Your task to perform on an android device: turn off sleep mode Image 0: 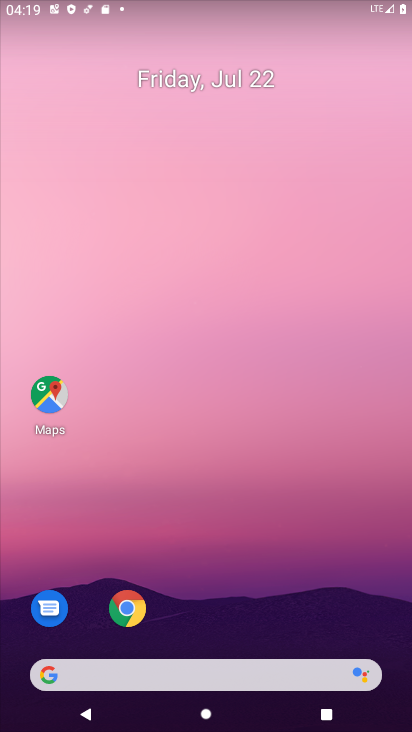
Step 0: click (129, 599)
Your task to perform on an android device: turn off sleep mode Image 1: 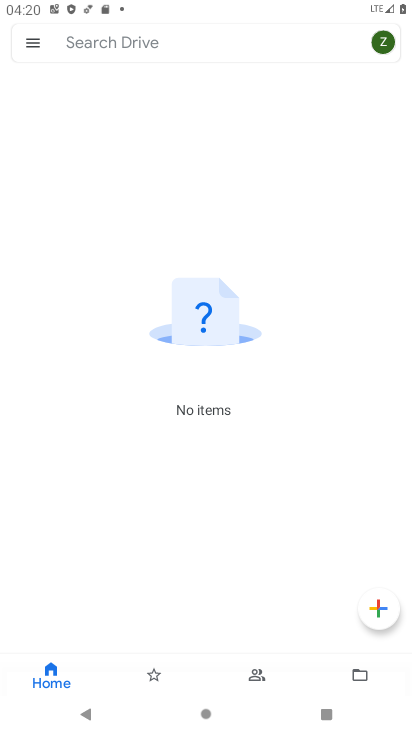
Step 1: press home button
Your task to perform on an android device: turn off sleep mode Image 2: 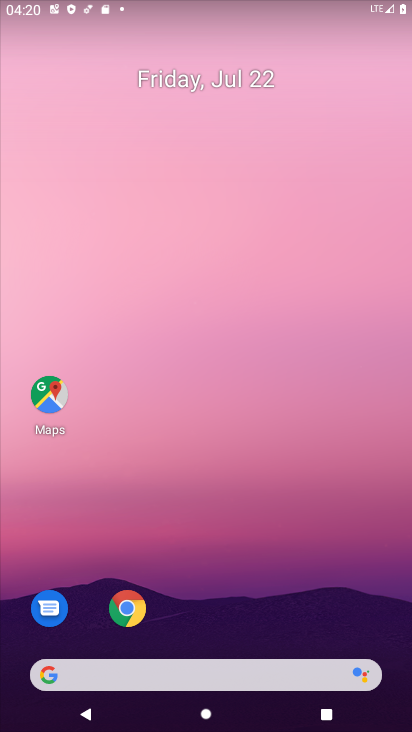
Step 2: drag from (239, 726) to (243, 222)
Your task to perform on an android device: turn off sleep mode Image 3: 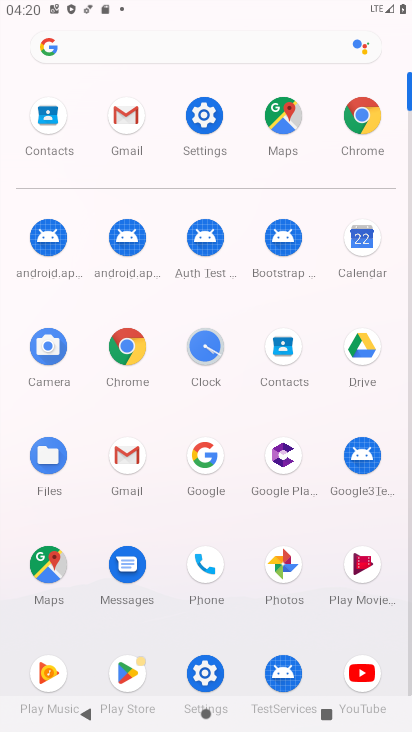
Step 3: click (209, 123)
Your task to perform on an android device: turn off sleep mode Image 4: 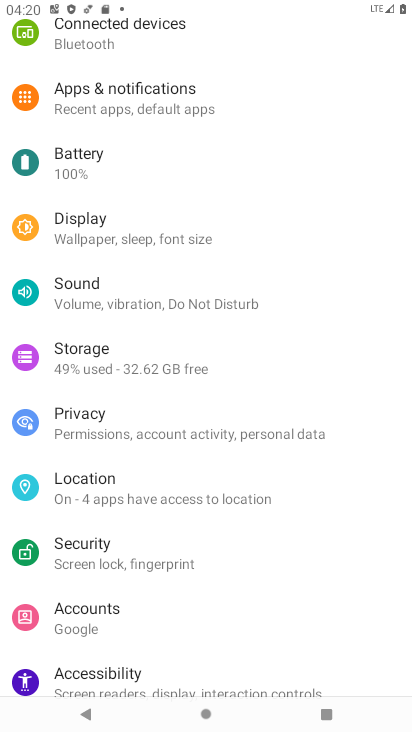
Step 4: click (128, 239)
Your task to perform on an android device: turn off sleep mode Image 5: 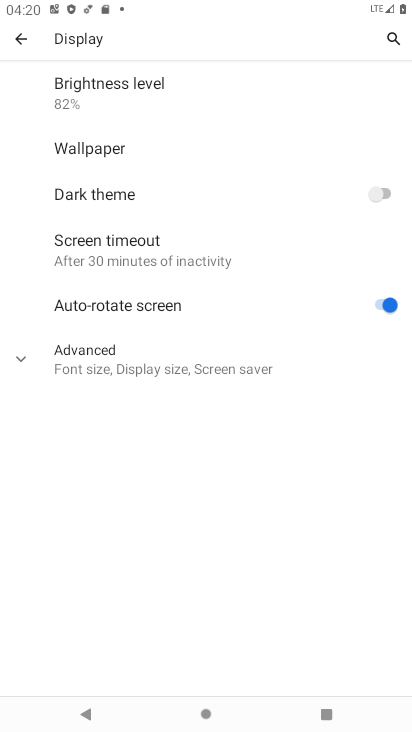
Step 5: click (121, 375)
Your task to perform on an android device: turn off sleep mode Image 6: 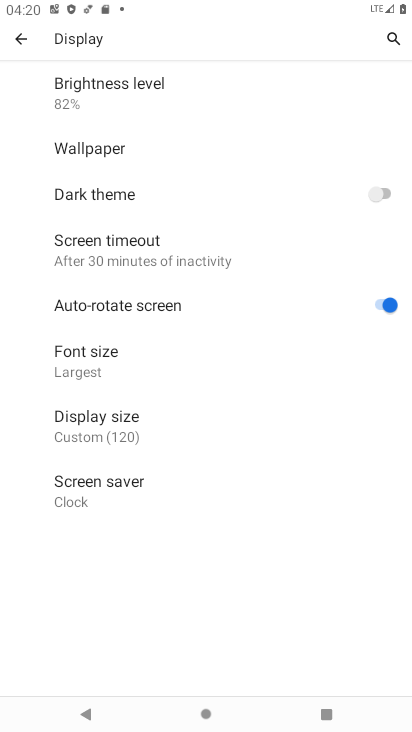
Step 6: task complete